Your task to perform on an android device: Open notification settings Image 0: 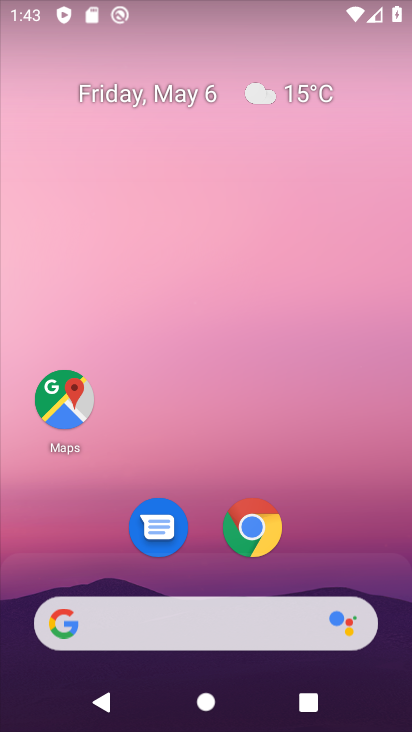
Step 0: drag from (190, 361) to (65, 100)
Your task to perform on an android device: Open notification settings Image 1: 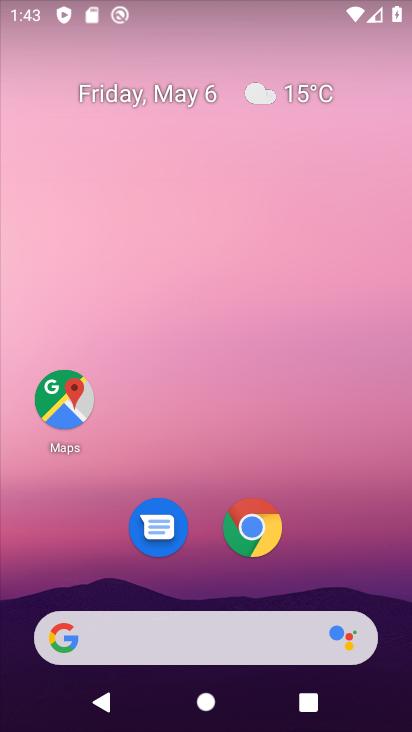
Step 1: drag from (353, 580) to (71, 44)
Your task to perform on an android device: Open notification settings Image 2: 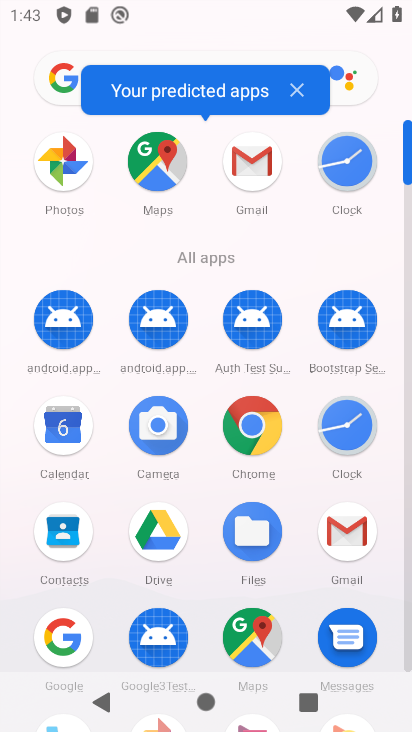
Step 2: drag from (203, 610) to (218, 203)
Your task to perform on an android device: Open notification settings Image 3: 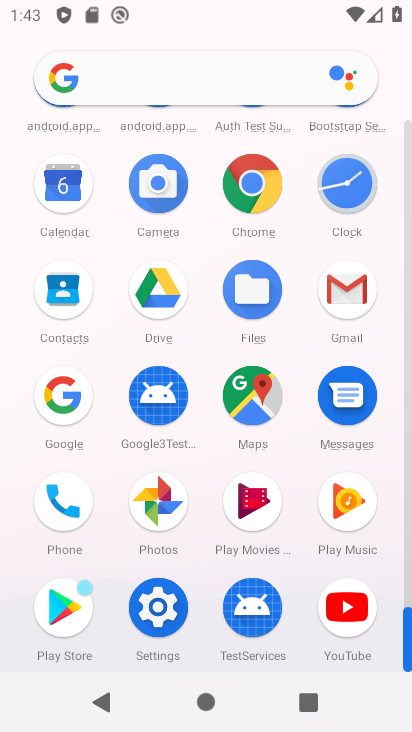
Step 3: click (156, 611)
Your task to perform on an android device: Open notification settings Image 4: 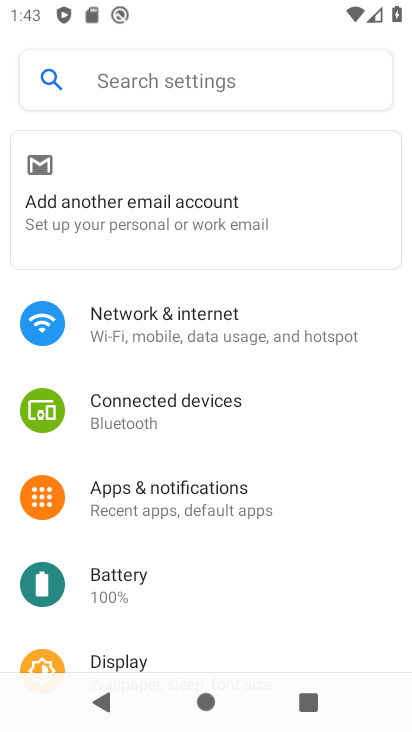
Step 4: click (154, 504)
Your task to perform on an android device: Open notification settings Image 5: 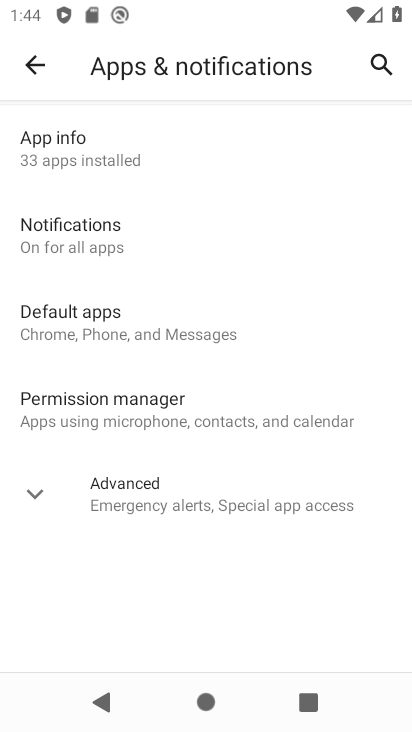
Step 5: click (40, 223)
Your task to perform on an android device: Open notification settings Image 6: 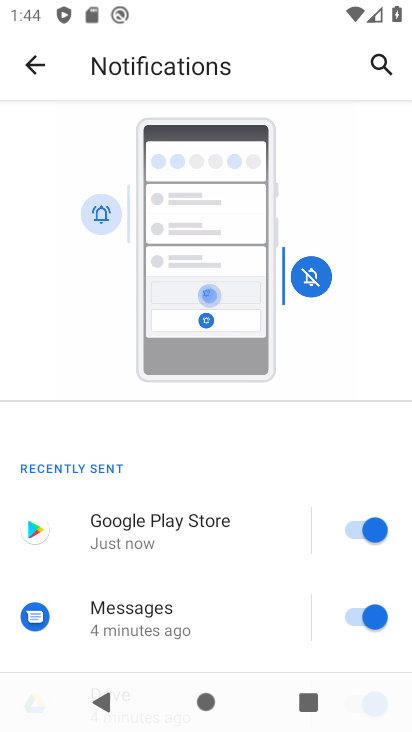
Step 6: task complete